Your task to perform on an android device: create a new album in the google photos Image 0: 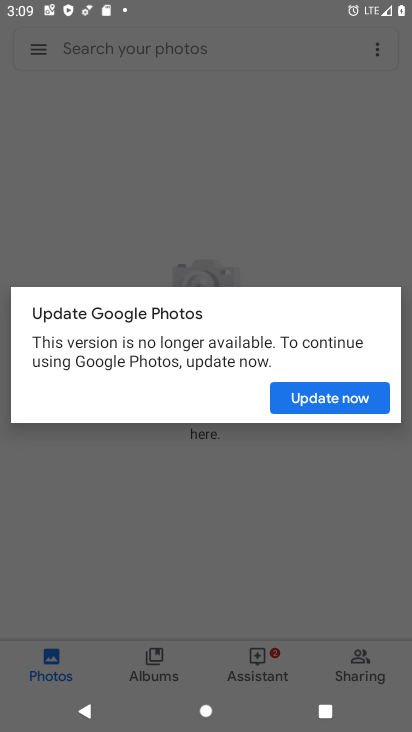
Step 0: press back button
Your task to perform on an android device: create a new album in the google photos Image 1: 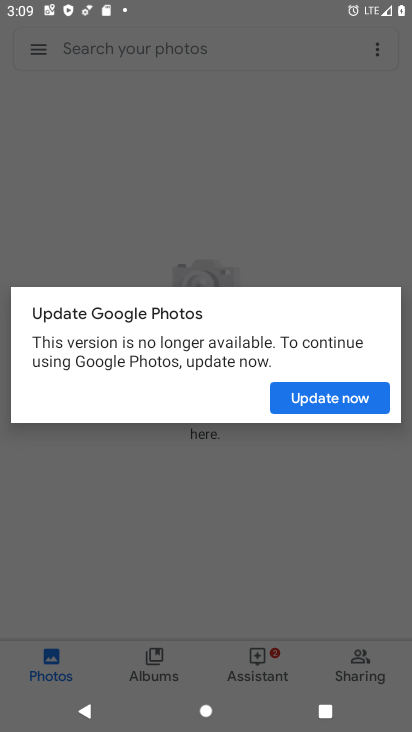
Step 1: press back button
Your task to perform on an android device: create a new album in the google photos Image 2: 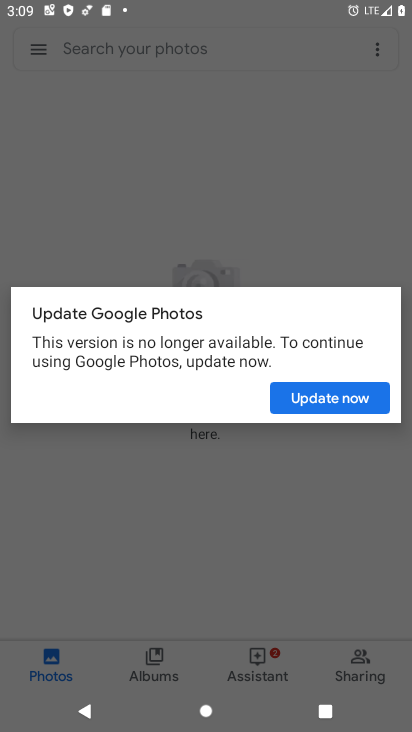
Step 2: press home button
Your task to perform on an android device: create a new album in the google photos Image 3: 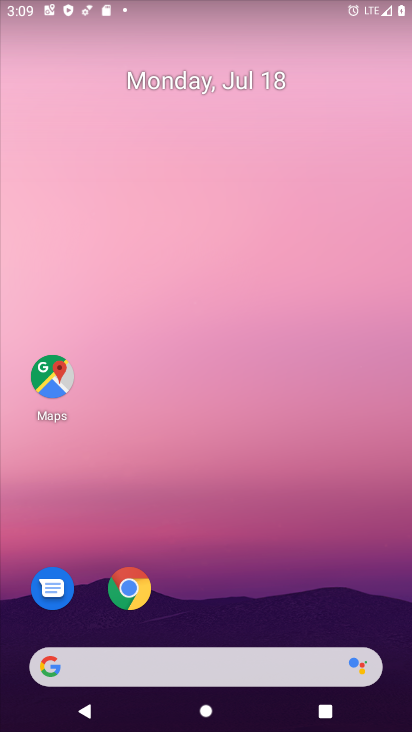
Step 3: drag from (208, 567) to (267, 14)
Your task to perform on an android device: create a new album in the google photos Image 4: 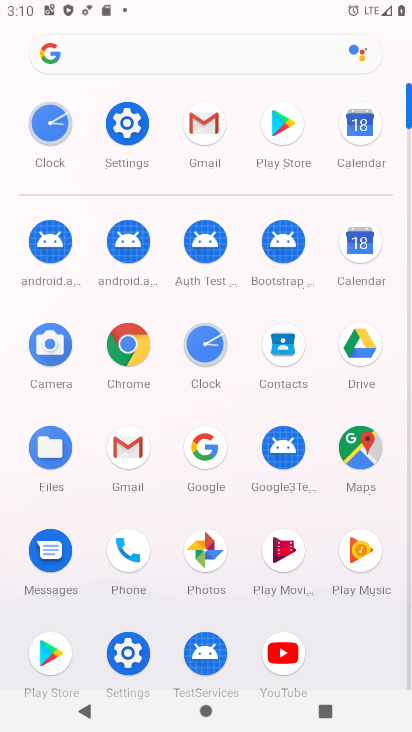
Step 4: click (209, 550)
Your task to perform on an android device: create a new album in the google photos Image 5: 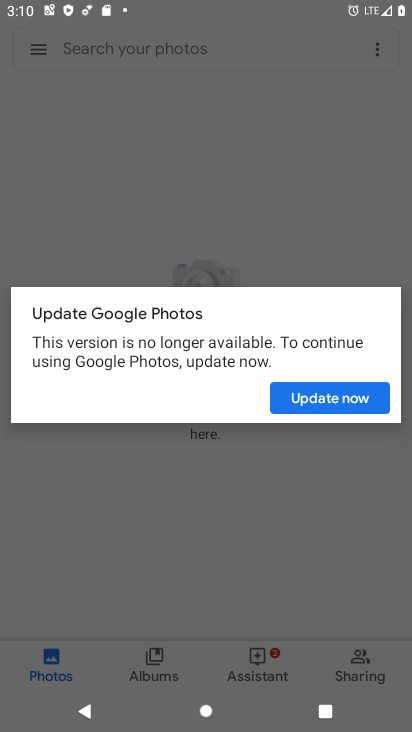
Step 5: click (329, 402)
Your task to perform on an android device: create a new album in the google photos Image 6: 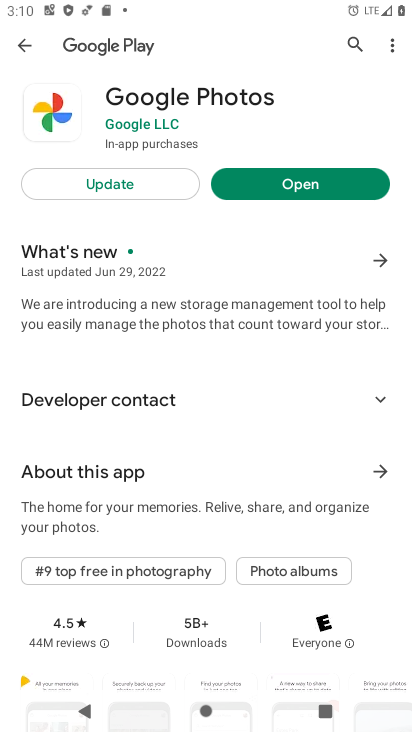
Step 6: click (285, 179)
Your task to perform on an android device: create a new album in the google photos Image 7: 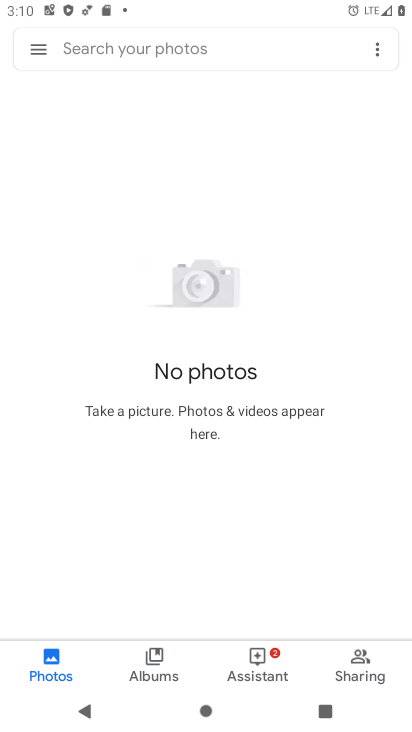
Step 7: click (155, 658)
Your task to perform on an android device: create a new album in the google photos Image 8: 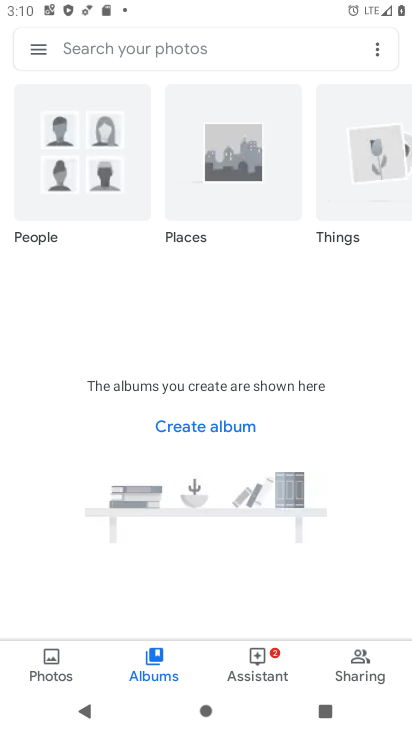
Step 8: click (193, 426)
Your task to perform on an android device: create a new album in the google photos Image 9: 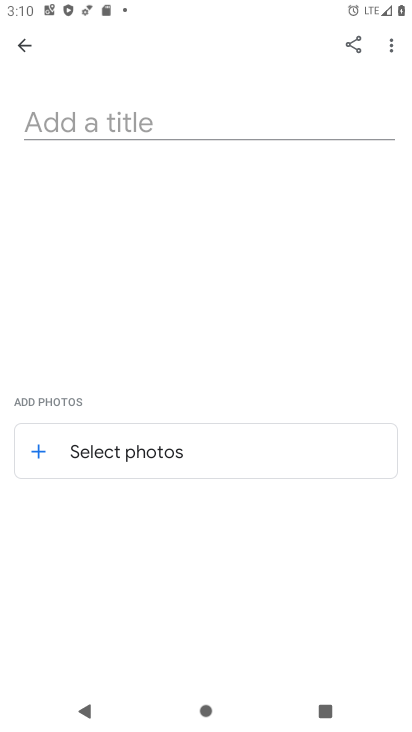
Step 9: click (160, 112)
Your task to perform on an android device: create a new album in the google photos Image 10: 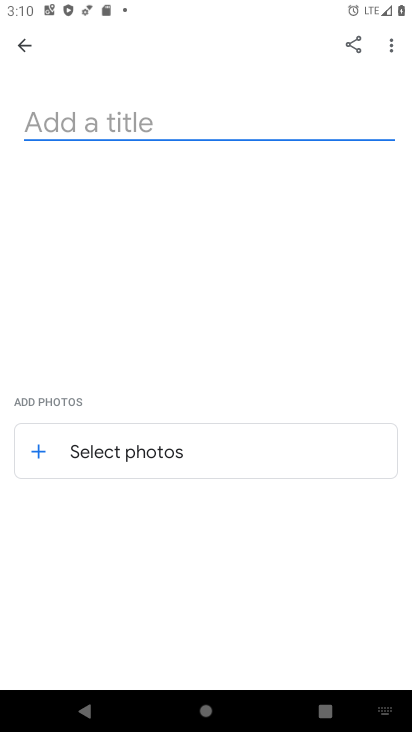
Step 10: type "hvhv"
Your task to perform on an android device: create a new album in the google photos Image 11: 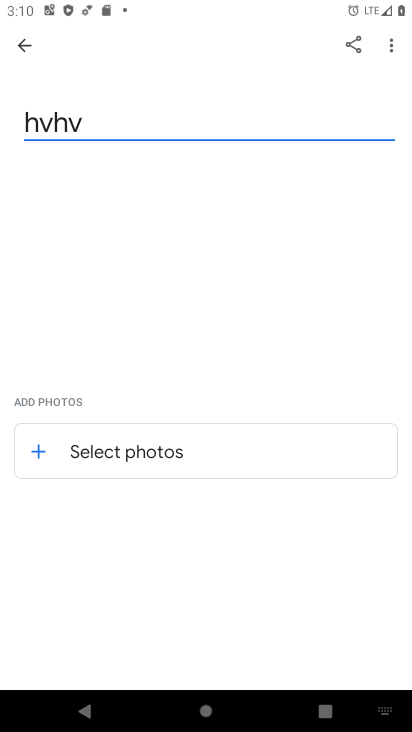
Step 11: click (95, 449)
Your task to perform on an android device: create a new album in the google photos Image 12: 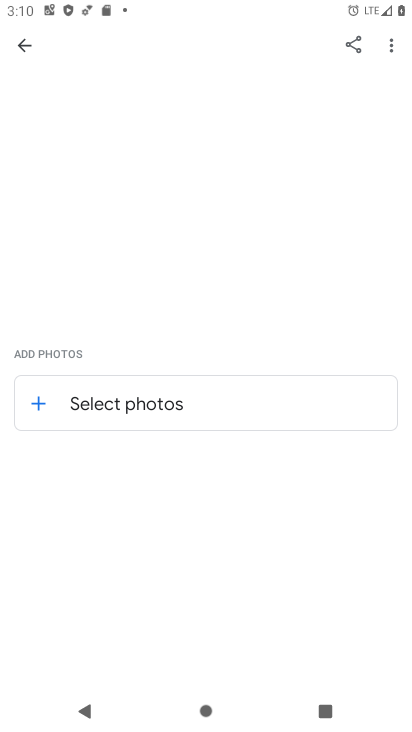
Step 12: click (95, 391)
Your task to perform on an android device: create a new album in the google photos Image 13: 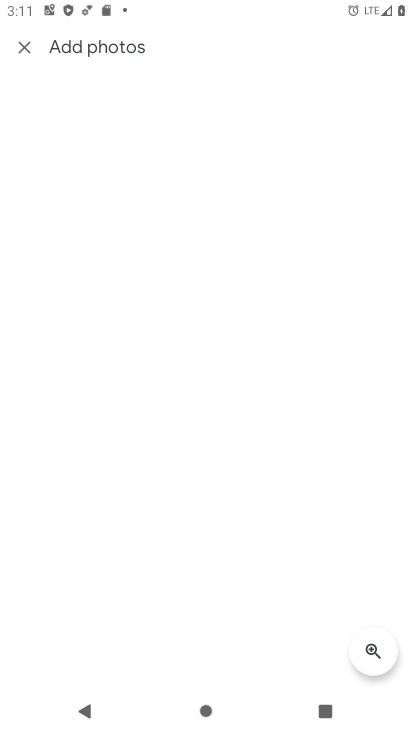
Step 13: task complete